Your task to perform on an android device: Open wifi settings Image 0: 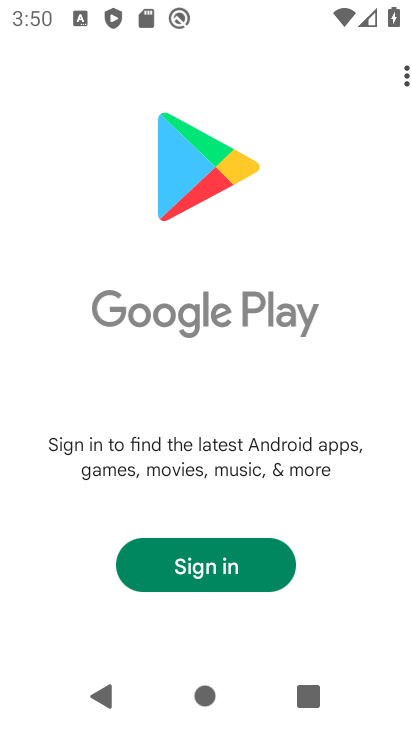
Step 0: press home button
Your task to perform on an android device: Open wifi settings Image 1: 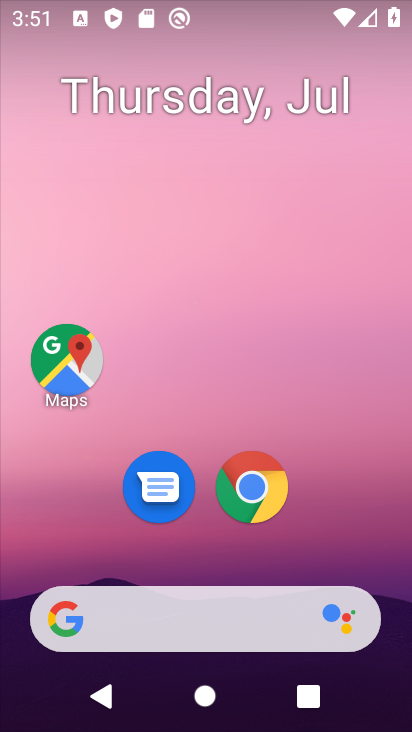
Step 1: drag from (262, 550) to (287, 144)
Your task to perform on an android device: Open wifi settings Image 2: 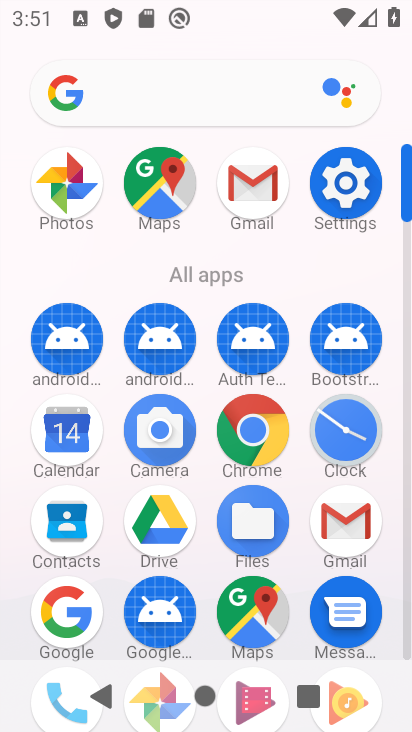
Step 2: click (347, 216)
Your task to perform on an android device: Open wifi settings Image 3: 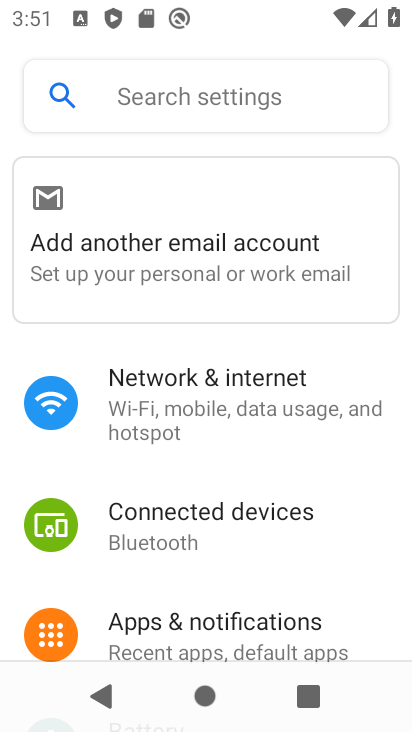
Step 3: click (255, 377)
Your task to perform on an android device: Open wifi settings Image 4: 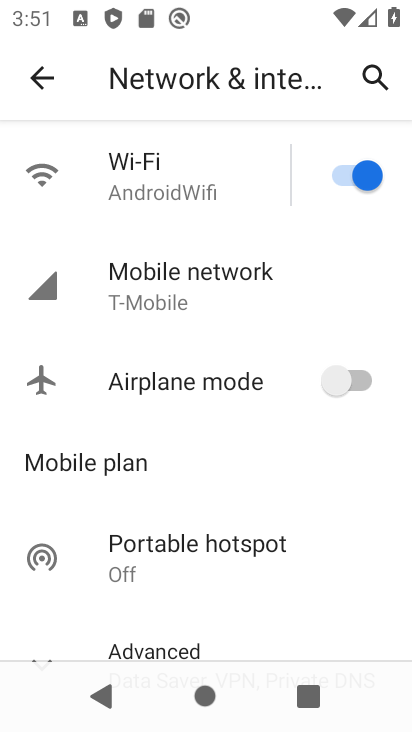
Step 4: click (206, 177)
Your task to perform on an android device: Open wifi settings Image 5: 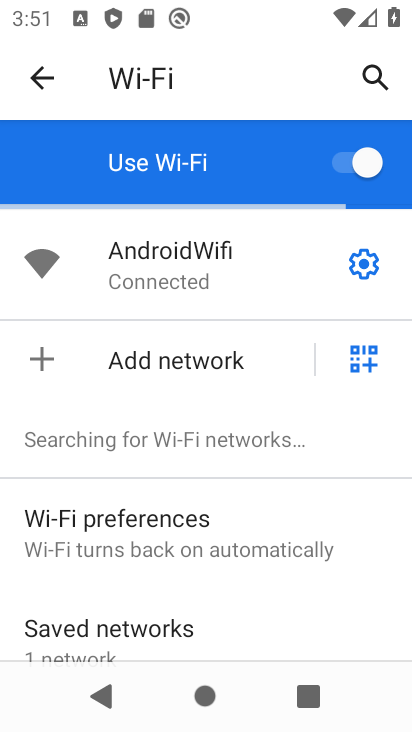
Step 5: task complete